Your task to perform on an android device: Search for a new foundation (skincare) product Image 0: 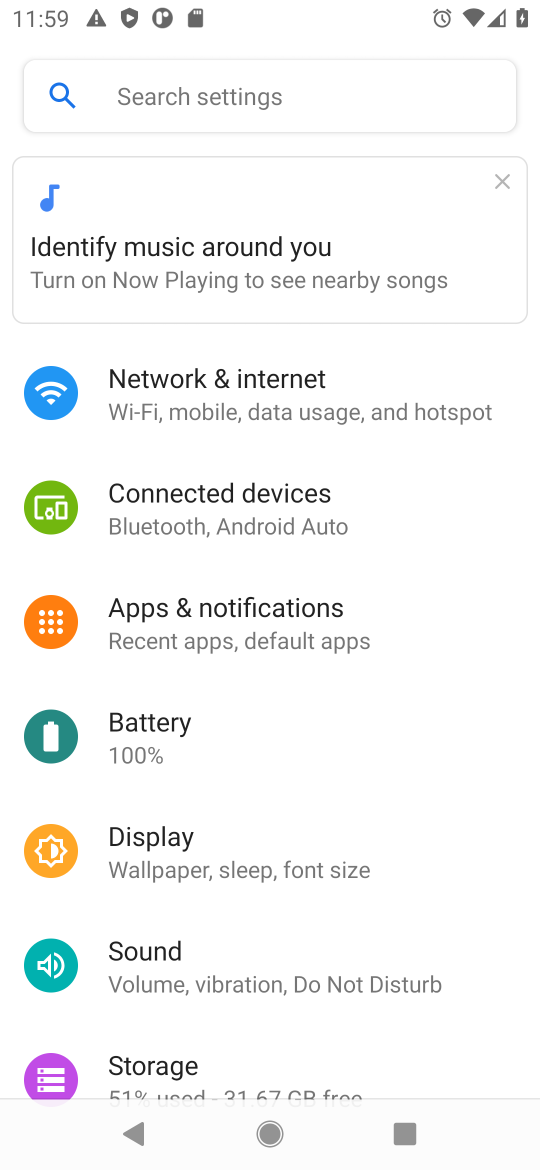
Step 0: press home button
Your task to perform on an android device: Search for a new foundation (skincare) product Image 1: 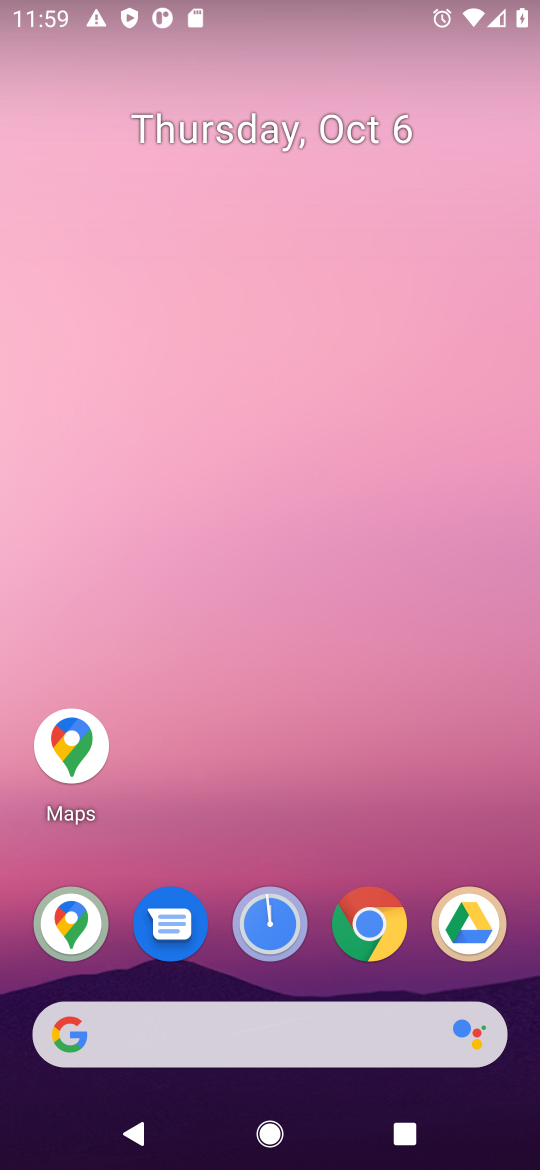
Step 1: click (357, 931)
Your task to perform on an android device: Search for a new foundation (skincare) product Image 2: 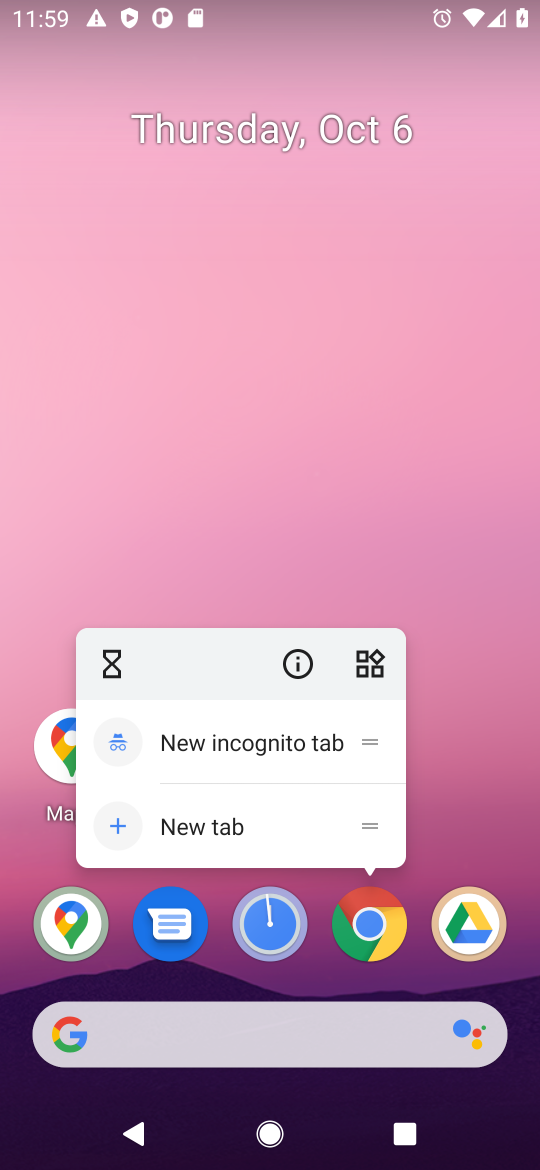
Step 2: click (357, 931)
Your task to perform on an android device: Search for a new foundation (skincare) product Image 3: 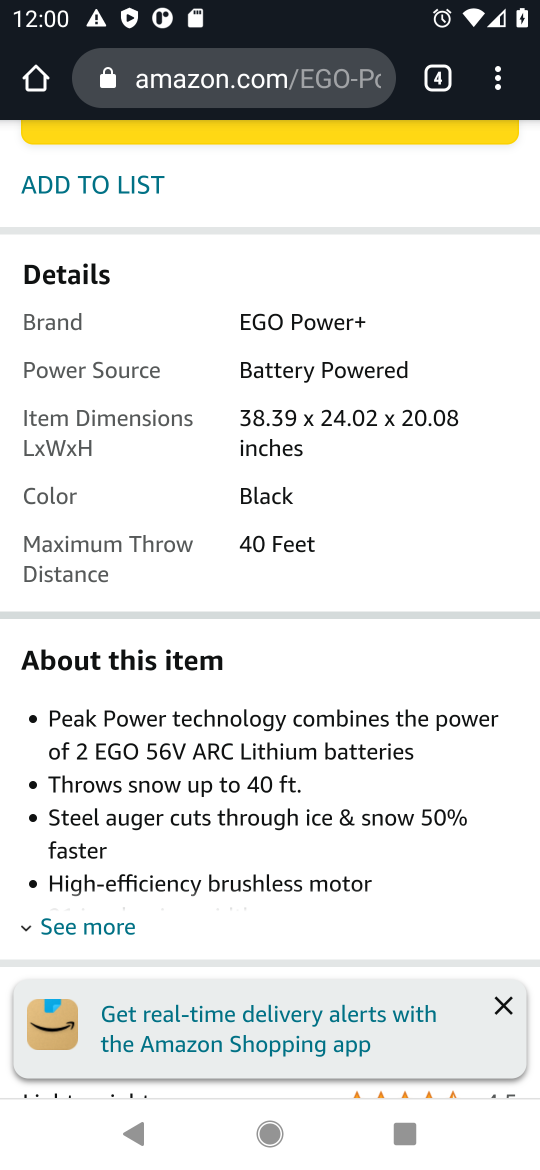
Step 3: click (316, 91)
Your task to perform on an android device: Search for a new foundation (skincare) product Image 4: 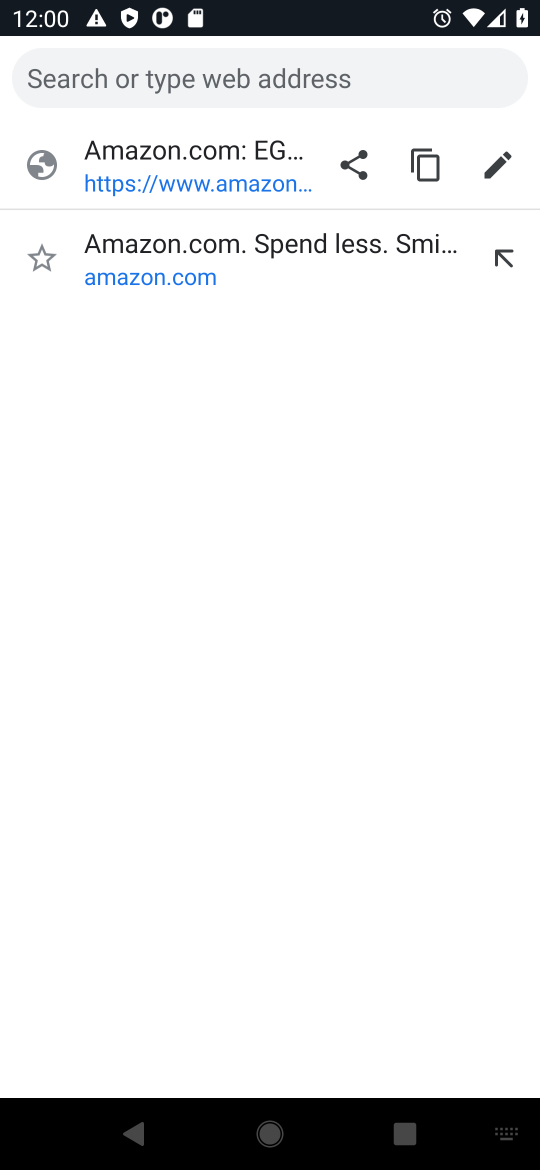
Step 4: type "new foundation (skincare) product"
Your task to perform on an android device: Search for a new foundation (skincare) product Image 5: 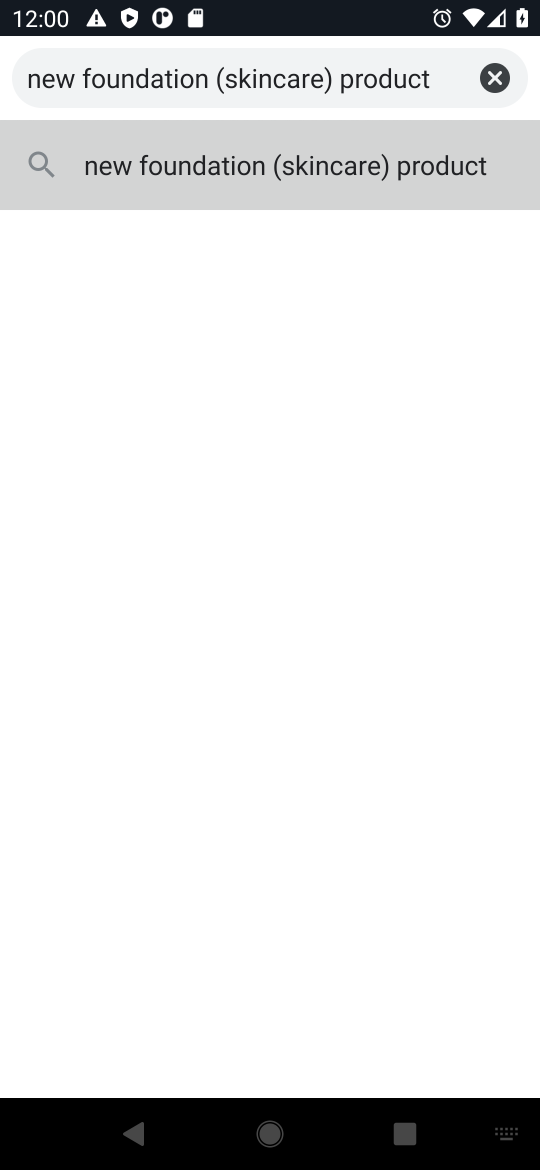
Step 5: click (259, 158)
Your task to perform on an android device: Search for a new foundation (skincare) product Image 6: 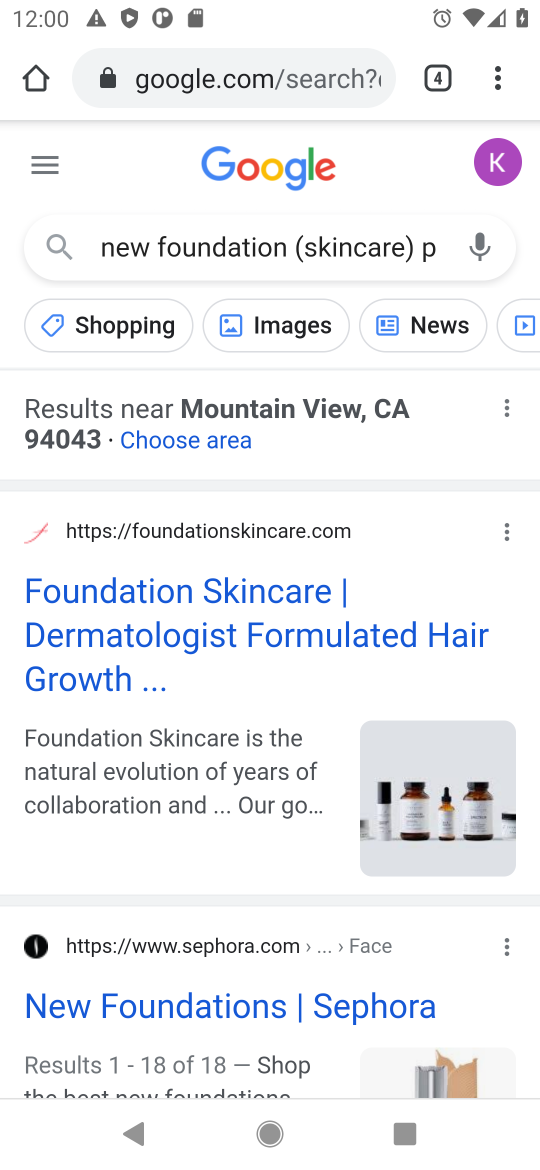
Step 6: drag from (179, 892) to (415, 426)
Your task to perform on an android device: Search for a new foundation (skincare) product Image 7: 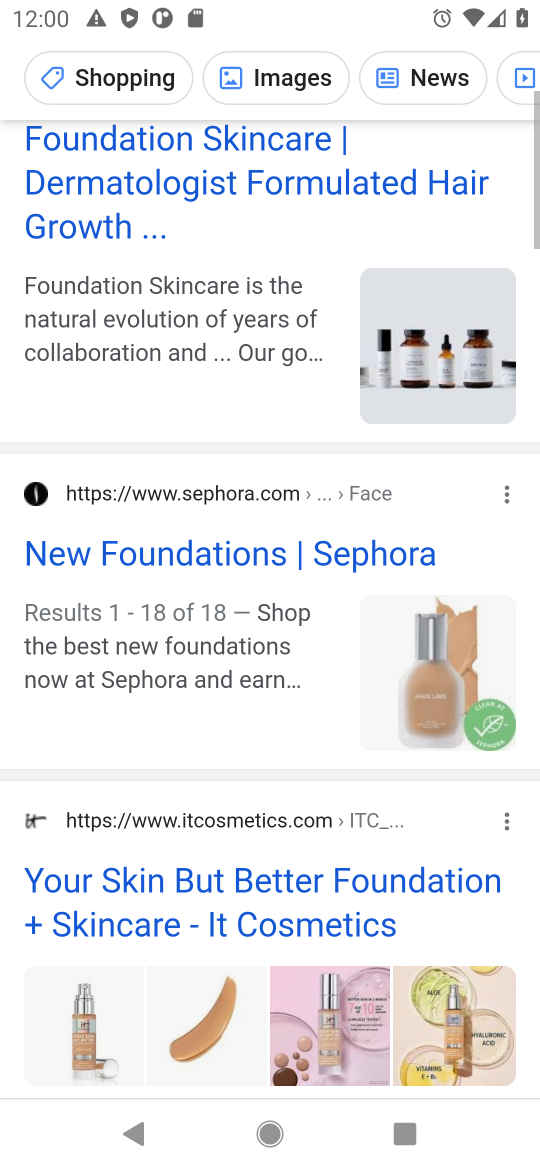
Step 7: drag from (397, 420) to (235, 811)
Your task to perform on an android device: Search for a new foundation (skincare) product Image 8: 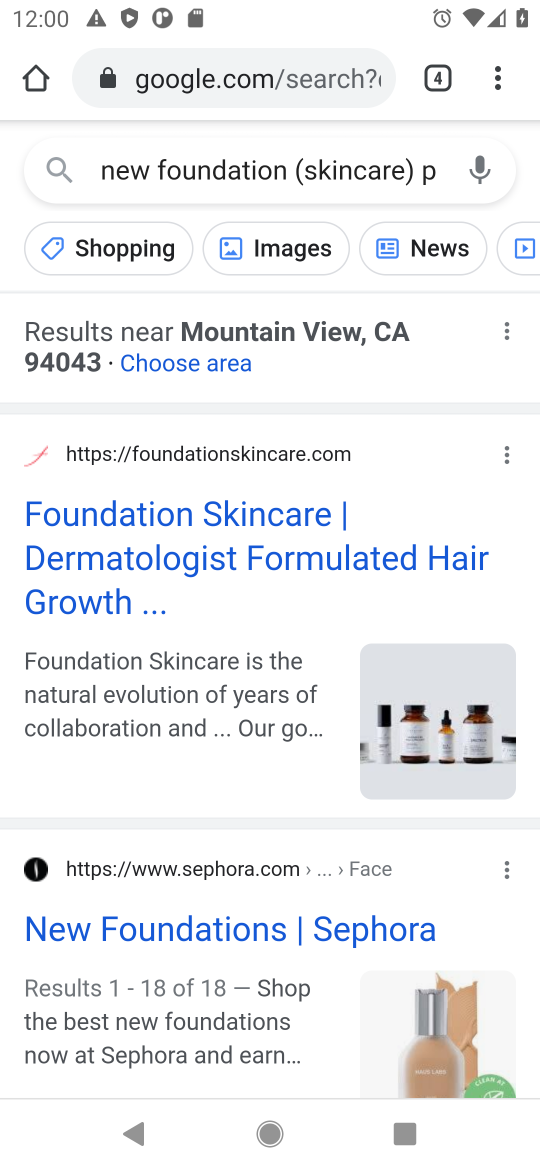
Step 8: click (190, 551)
Your task to perform on an android device: Search for a new foundation (skincare) product Image 9: 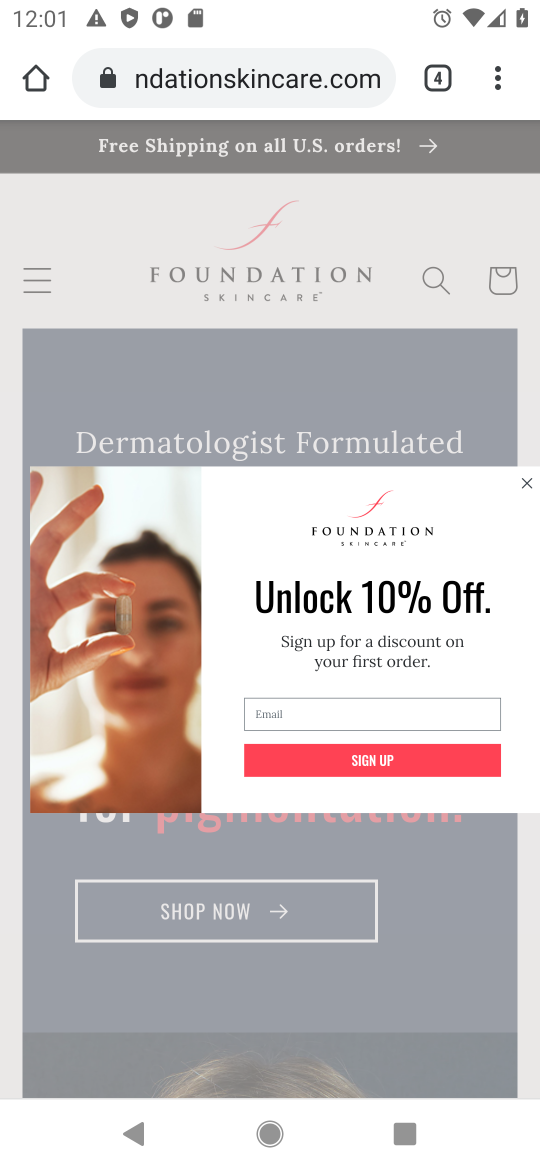
Step 9: drag from (90, 973) to (402, 348)
Your task to perform on an android device: Search for a new foundation (skincare) product Image 10: 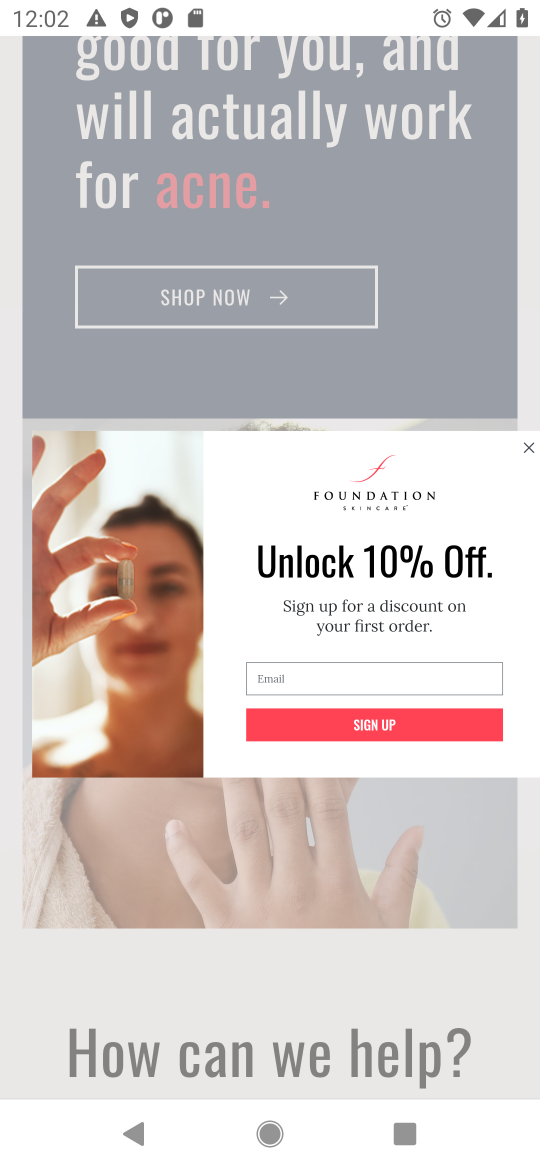
Step 10: drag from (285, 955) to (460, 285)
Your task to perform on an android device: Search for a new foundation (skincare) product Image 11: 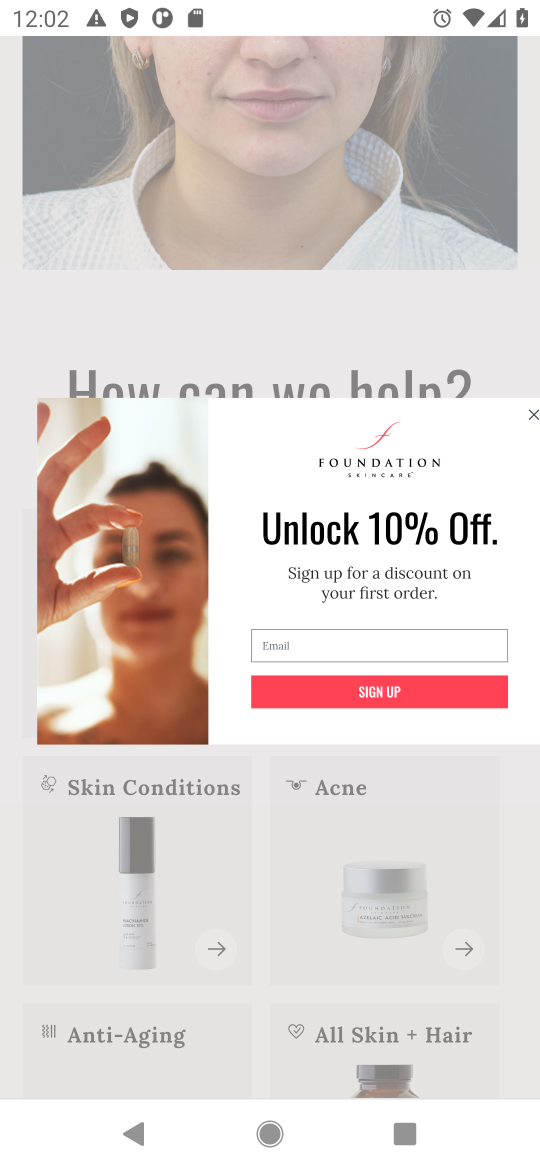
Step 11: click (525, 398)
Your task to perform on an android device: Search for a new foundation (skincare) product Image 12: 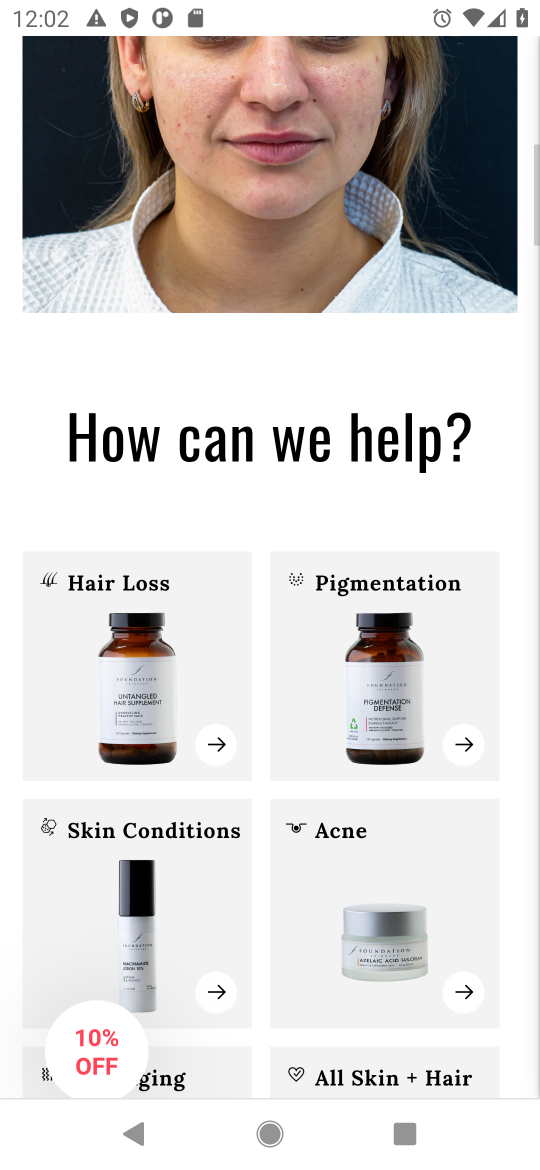
Step 12: click (528, 403)
Your task to perform on an android device: Search for a new foundation (skincare) product Image 13: 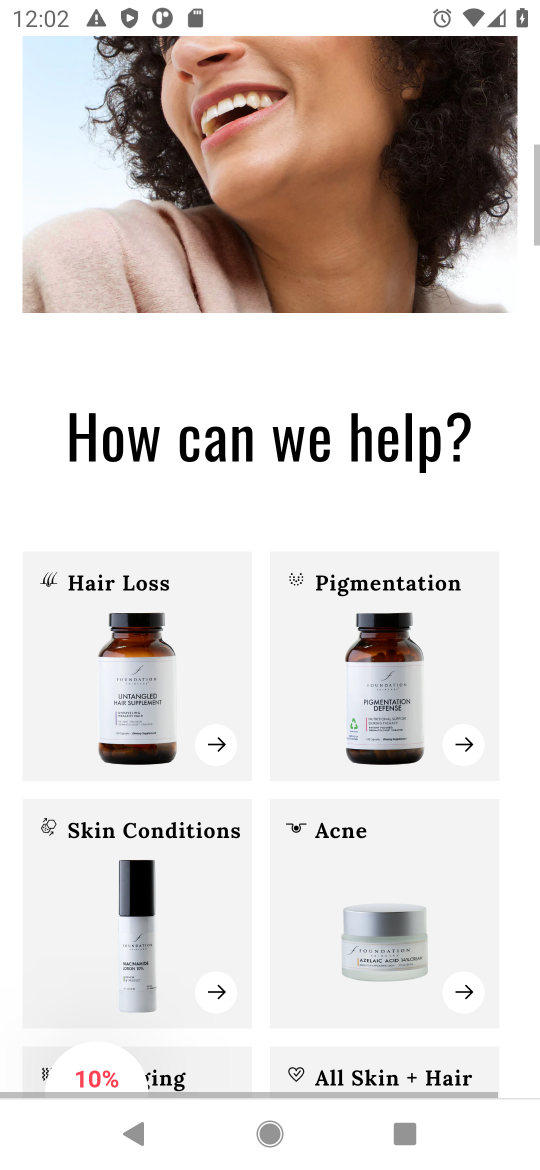
Step 13: task complete